Your task to perform on an android device: Open the Play Movies app and select the watchlist tab. Image 0: 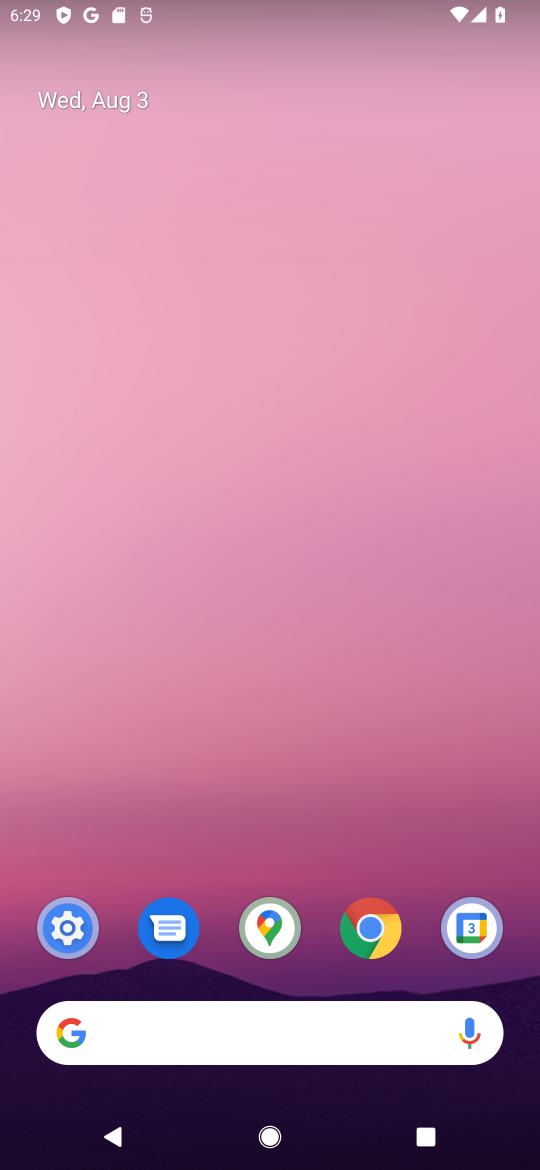
Step 0: drag from (360, 784) to (382, 156)
Your task to perform on an android device: Open the Play Movies app and select the watchlist tab. Image 1: 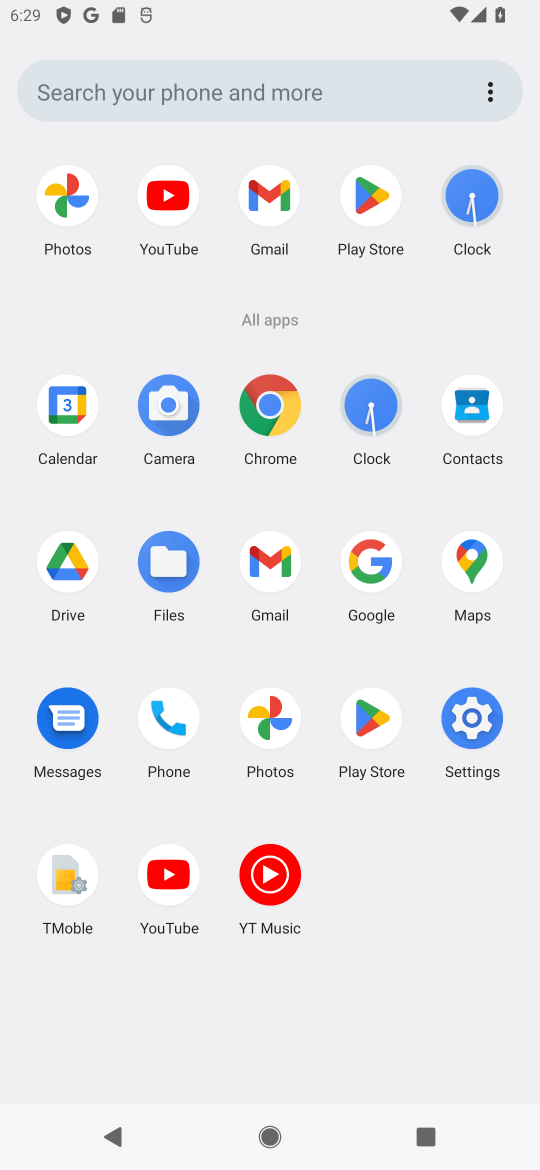
Step 1: task complete